Your task to perform on an android device: Open the phone app and click the voicemail tab. Image 0: 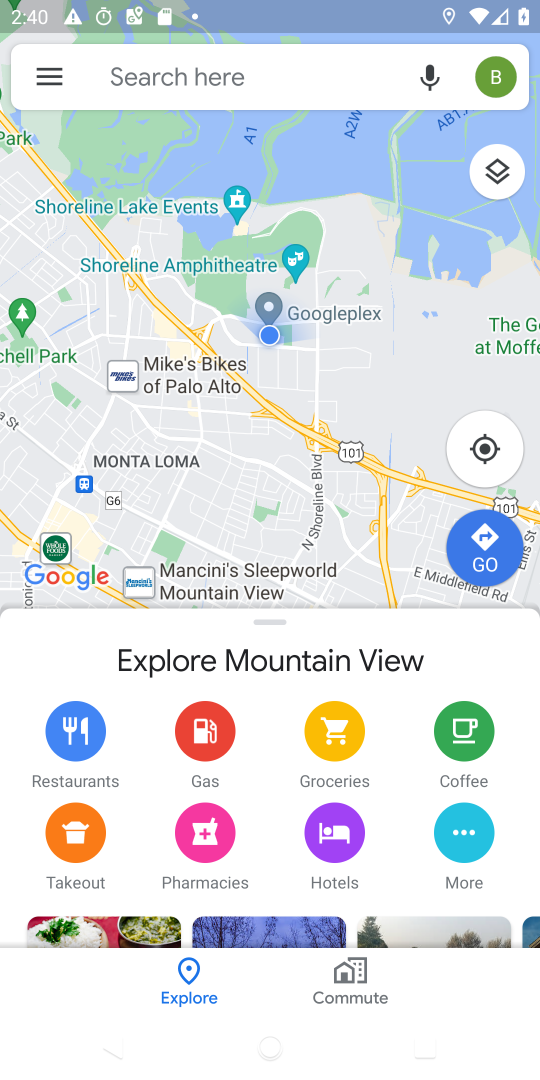
Step 0: press home button
Your task to perform on an android device: Open the phone app and click the voicemail tab. Image 1: 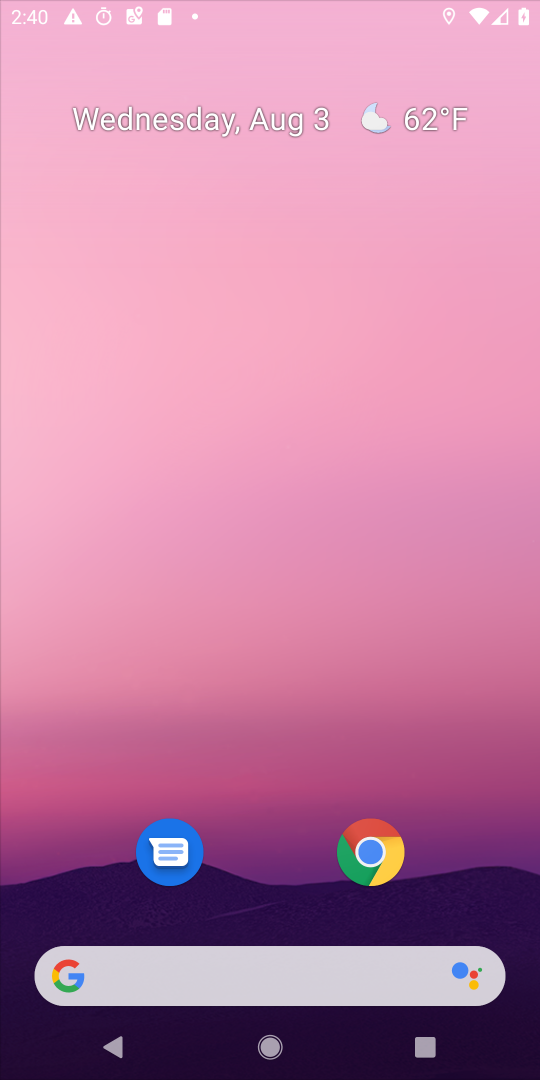
Step 1: drag from (500, 918) to (217, 174)
Your task to perform on an android device: Open the phone app and click the voicemail tab. Image 2: 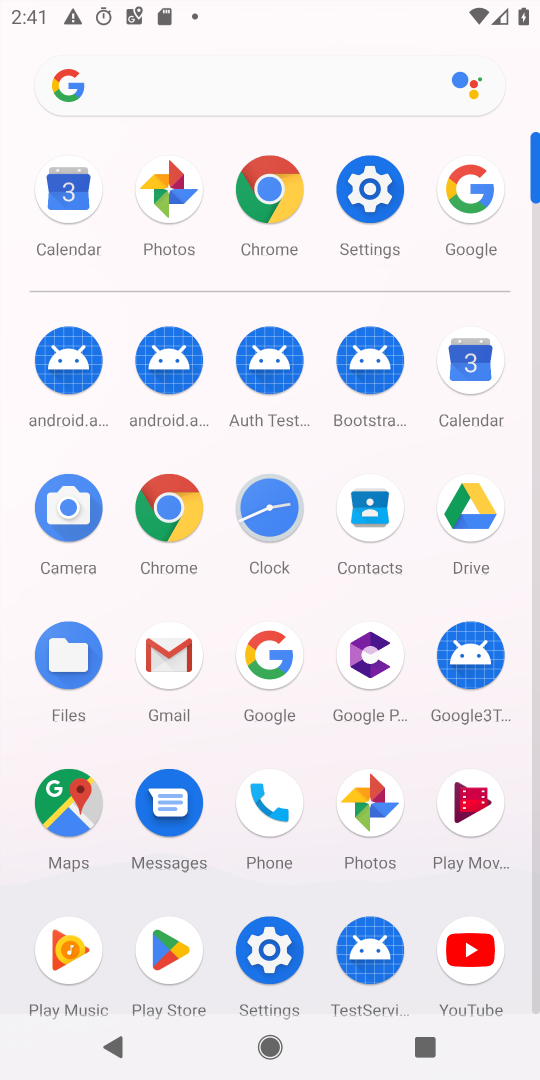
Step 2: click (292, 803)
Your task to perform on an android device: Open the phone app and click the voicemail tab. Image 3: 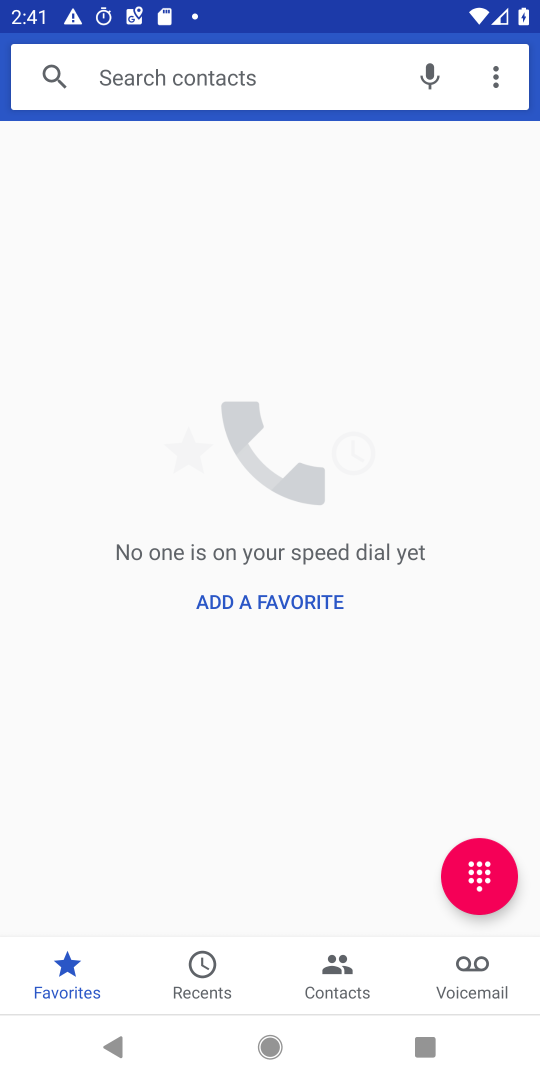
Step 3: click (461, 990)
Your task to perform on an android device: Open the phone app and click the voicemail tab. Image 4: 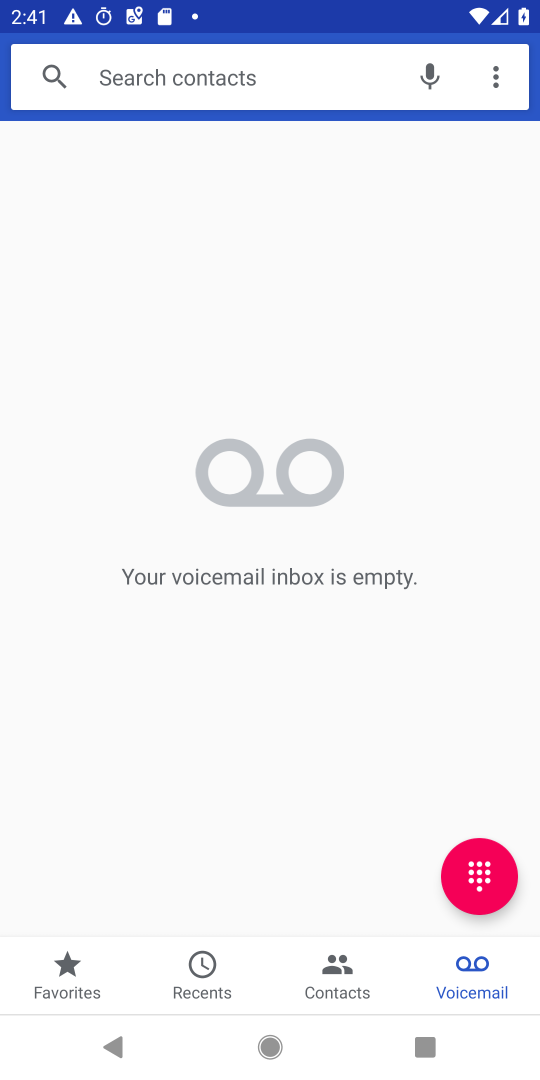
Step 4: task complete